Your task to perform on an android device: Open settings Image 0: 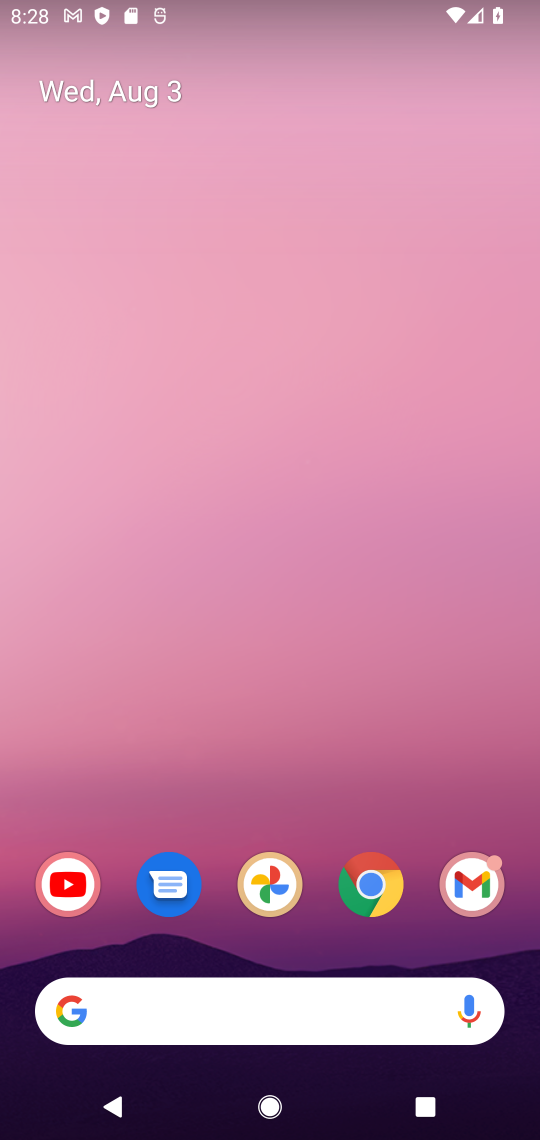
Step 0: drag from (78, 1089) to (136, 331)
Your task to perform on an android device: Open settings Image 1: 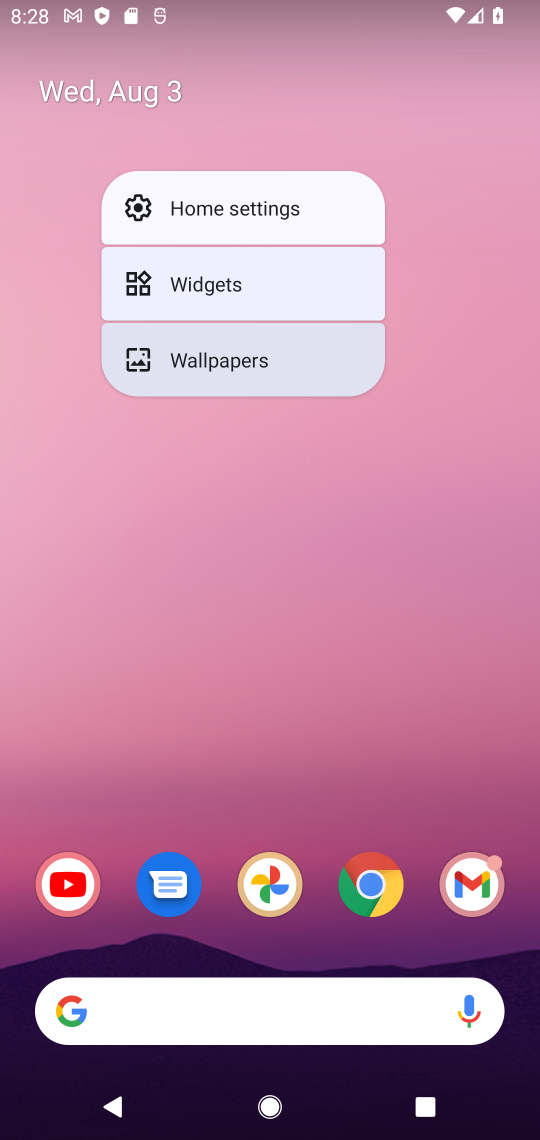
Step 1: drag from (82, 861) to (107, 176)
Your task to perform on an android device: Open settings Image 2: 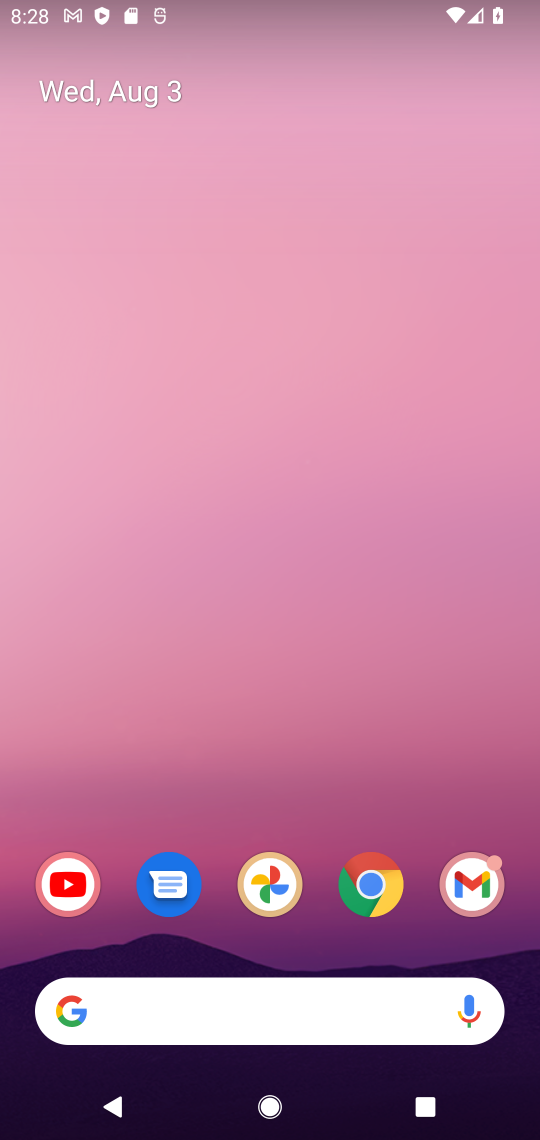
Step 2: drag from (72, 1043) to (203, 16)
Your task to perform on an android device: Open settings Image 3: 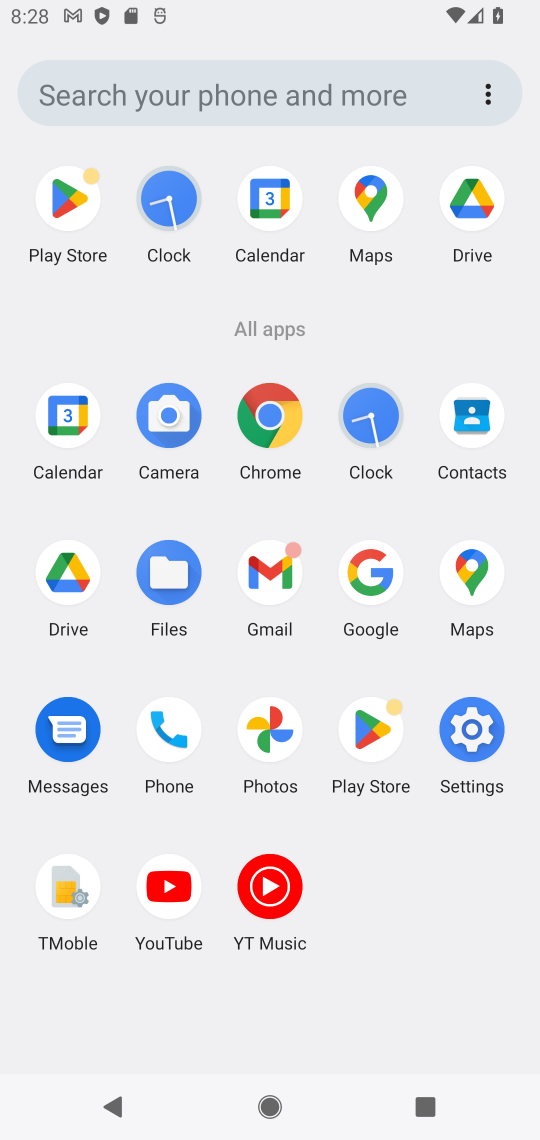
Step 3: click (475, 732)
Your task to perform on an android device: Open settings Image 4: 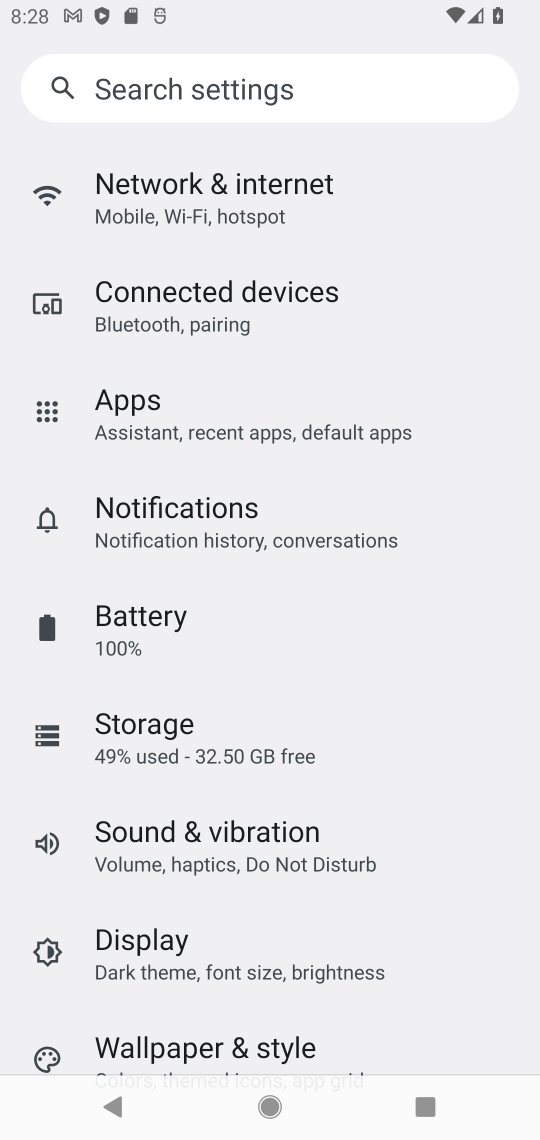
Step 4: task complete